Your task to perform on an android device: turn off location Image 0: 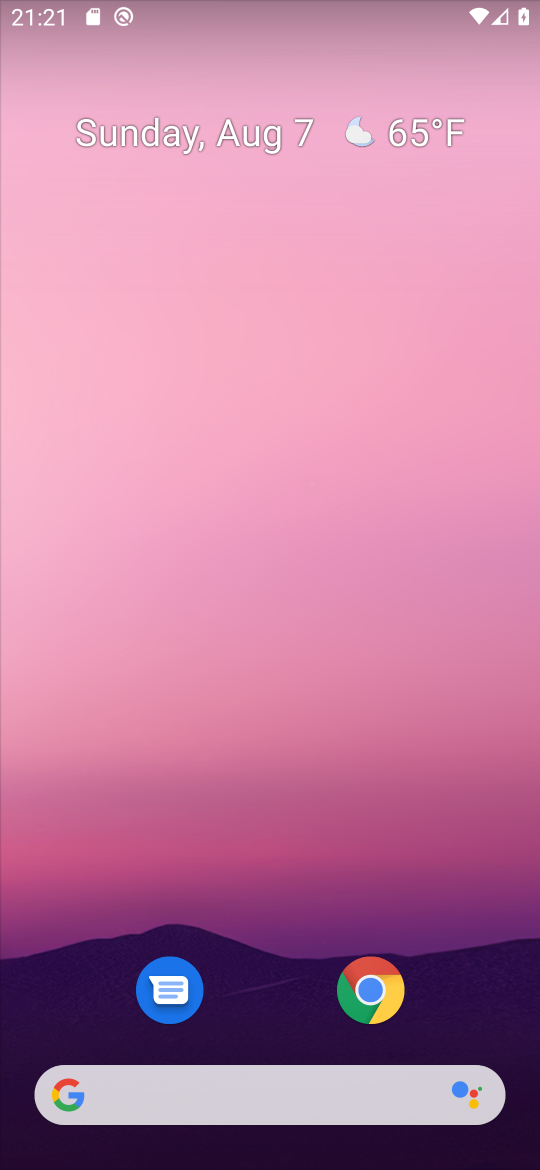
Step 0: drag from (258, 964) to (312, 2)
Your task to perform on an android device: turn off location Image 1: 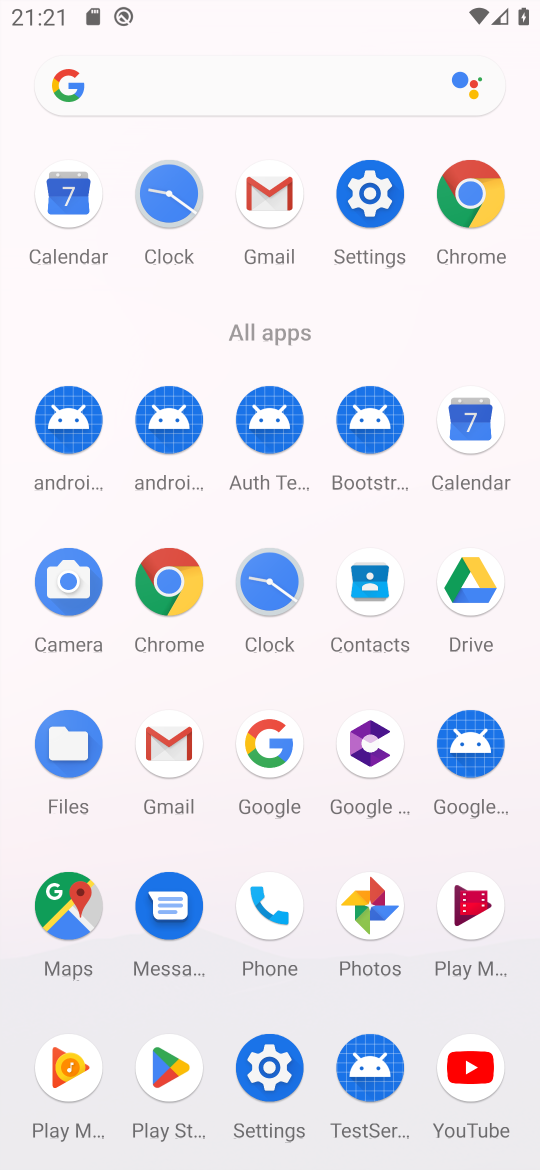
Step 1: click (371, 193)
Your task to perform on an android device: turn off location Image 2: 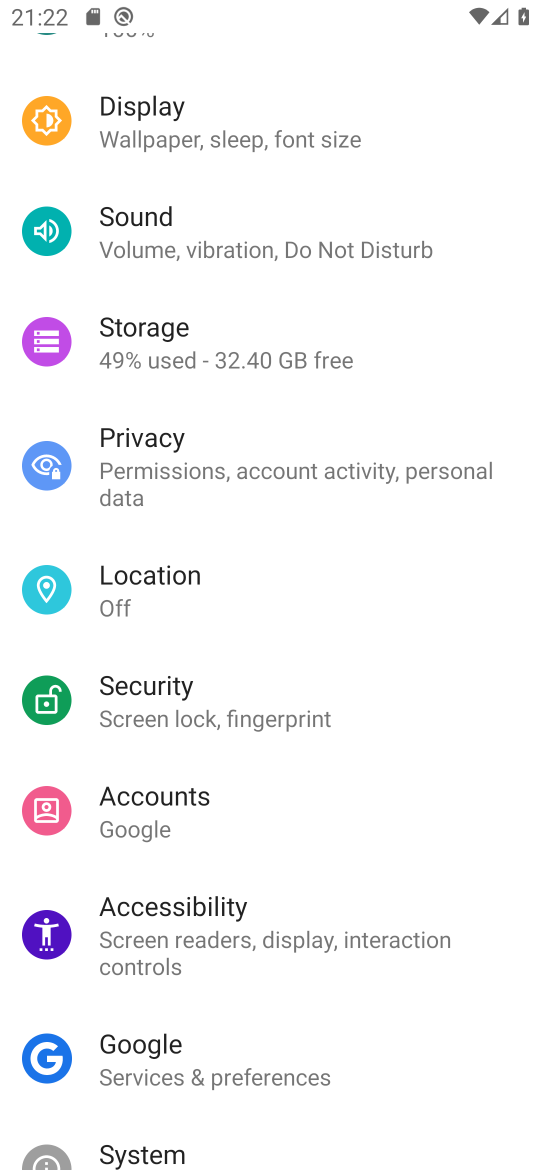
Step 2: click (224, 593)
Your task to perform on an android device: turn off location Image 3: 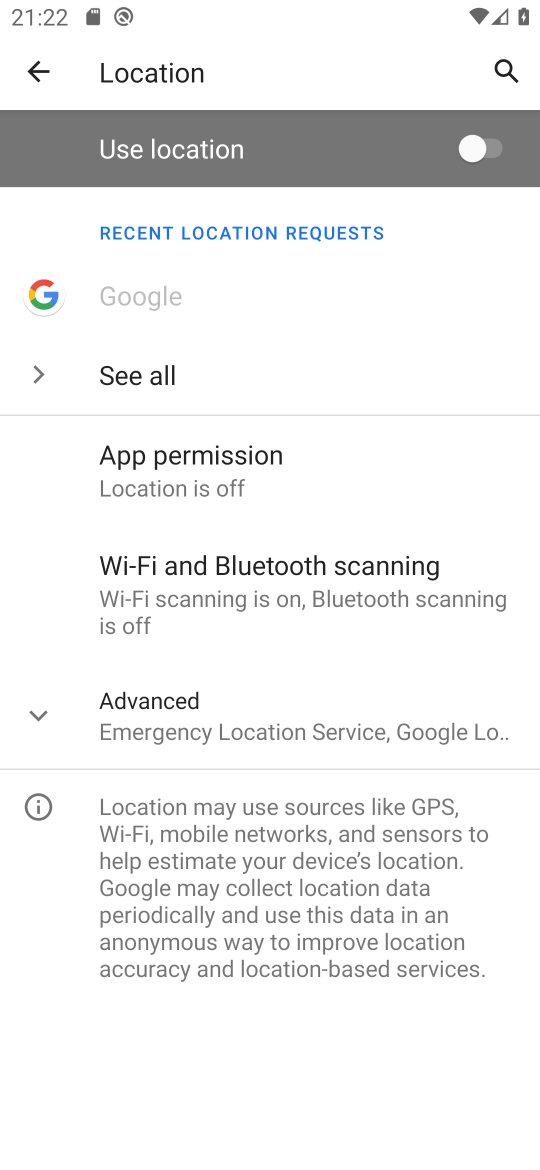
Step 3: task complete